Your task to perform on an android device: Go to calendar. Show me events next week Image 0: 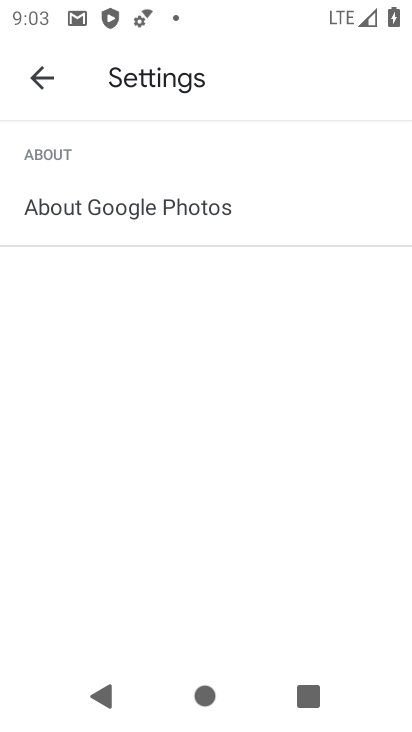
Step 0: press back button
Your task to perform on an android device: Go to calendar. Show me events next week Image 1: 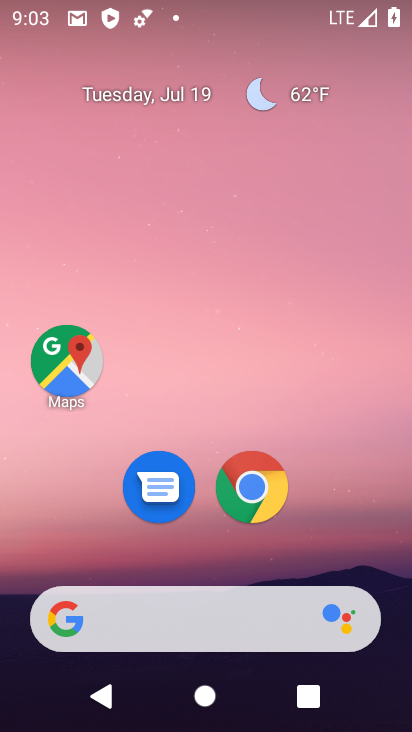
Step 1: drag from (173, 546) to (181, 0)
Your task to perform on an android device: Go to calendar. Show me events next week Image 2: 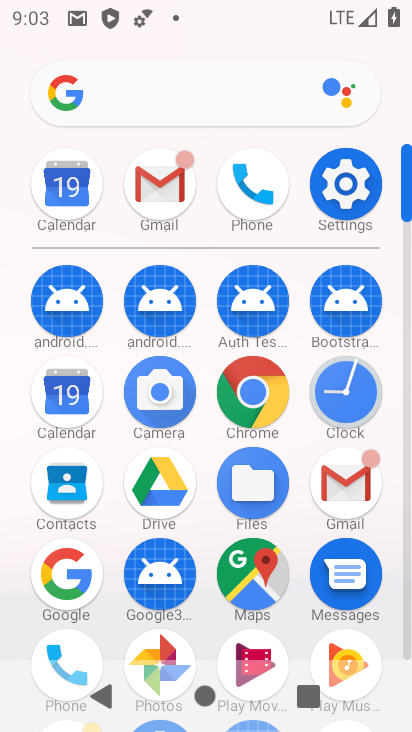
Step 2: click (52, 412)
Your task to perform on an android device: Go to calendar. Show me events next week Image 3: 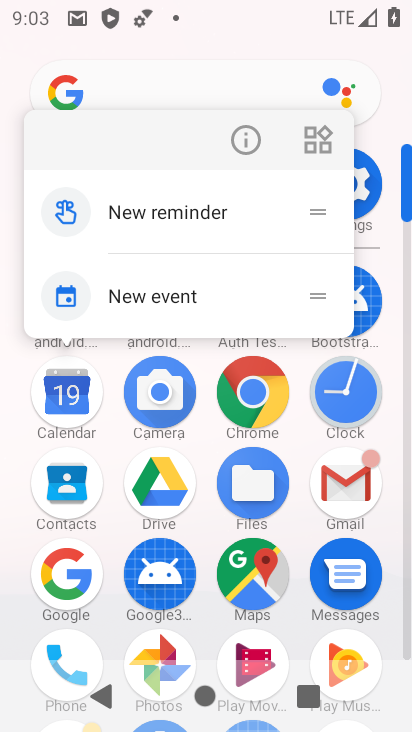
Step 3: click (71, 380)
Your task to perform on an android device: Go to calendar. Show me events next week Image 4: 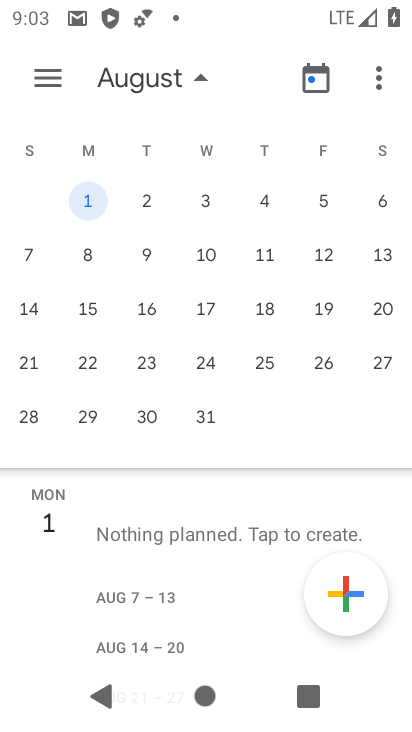
Step 4: drag from (55, 316) to (410, 327)
Your task to perform on an android device: Go to calendar. Show me events next week Image 5: 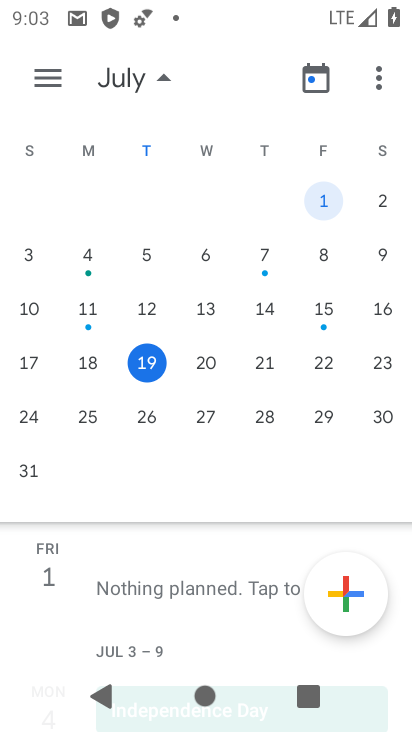
Step 5: click (85, 416)
Your task to perform on an android device: Go to calendar. Show me events next week Image 6: 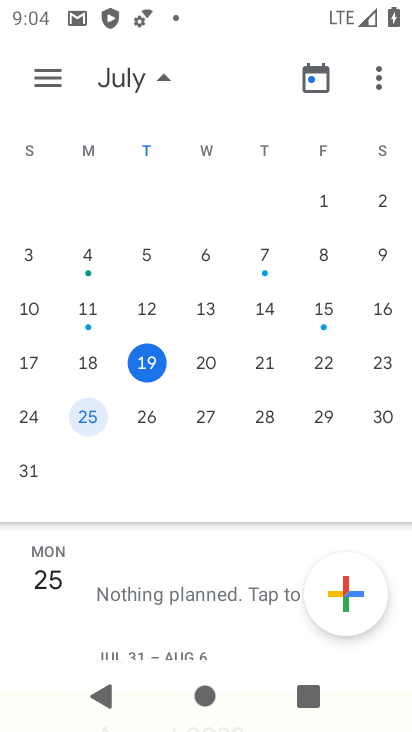
Step 6: task complete